Your task to perform on an android device: turn vacation reply on in the gmail app Image 0: 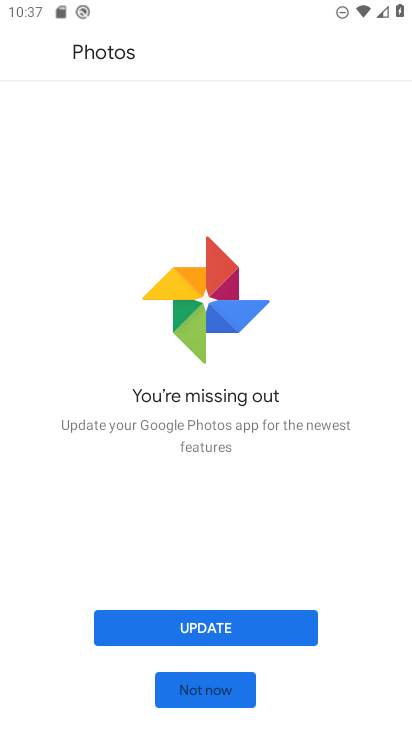
Step 0: press home button
Your task to perform on an android device: turn vacation reply on in the gmail app Image 1: 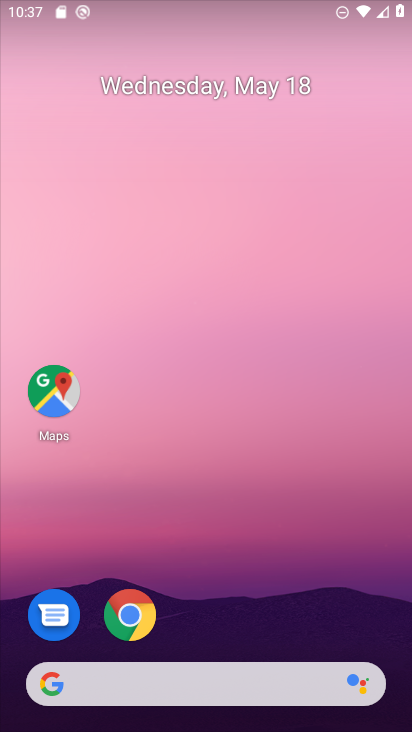
Step 1: drag from (245, 552) to (242, 56)
Your task to perform on an android device: turn vacation reply on in the gmail app Image 2: 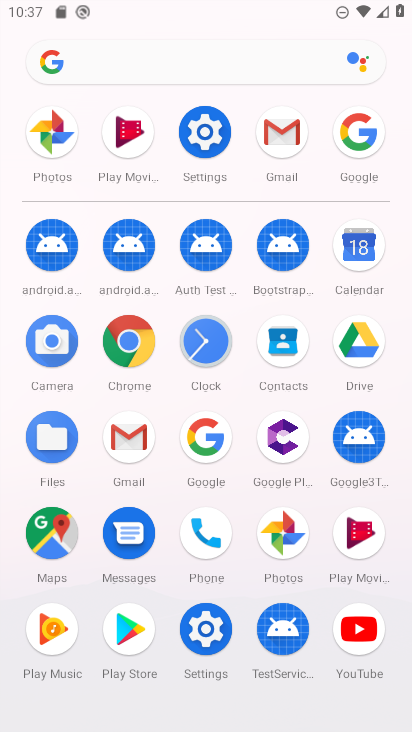
Step 2: click (203, 137)
Your task to perform on an android device: turn vacation reply on in the gmail app Image 3: 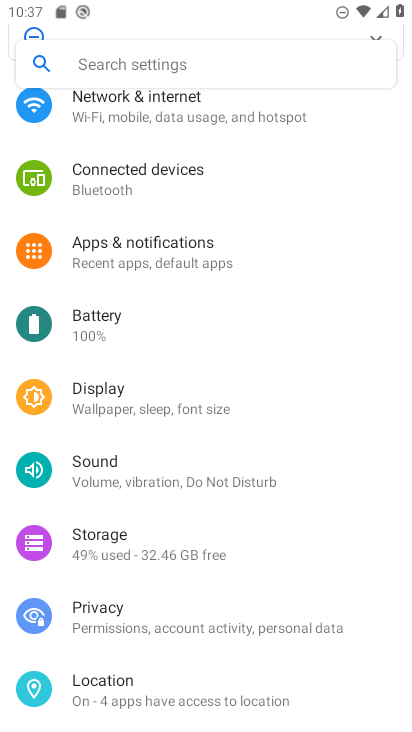
Step 3: drag from (175, 631) to (128, 182)
Your task to perform on an android device: turn vacation reply on in the gmail app Image 4: 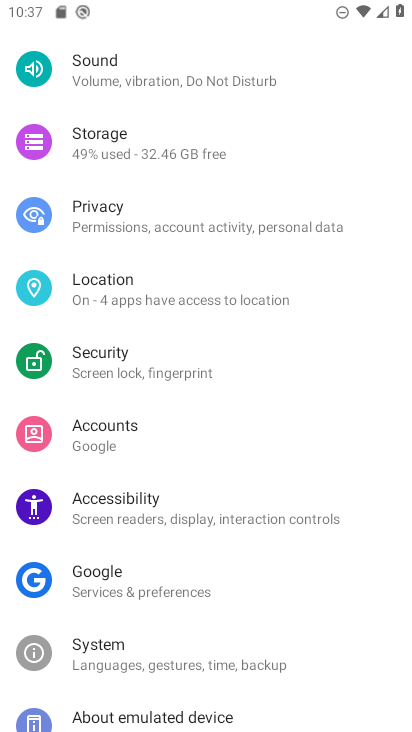
Step 4: drag from (208, 569) to (204, 258)
Your task to perform on an android device: turn vacation reply on in the gmail app Image 5: 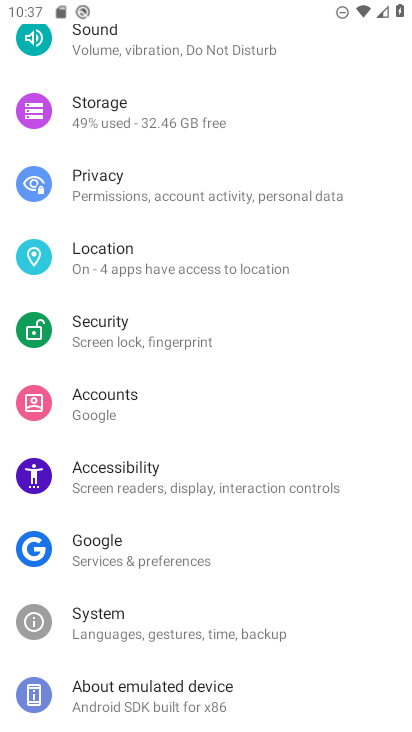
Step 5: drag from (183, 298) to (198, 452)
Your task to perform on an android device: turn vacation reply on in the gmail app Image 6: 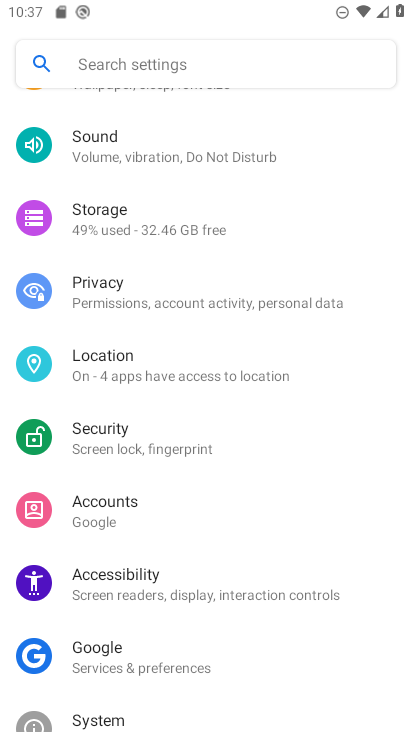
Step 6: press home button
Your task to perform on an android device: turn vacation reply on in the gmail app Image 7: 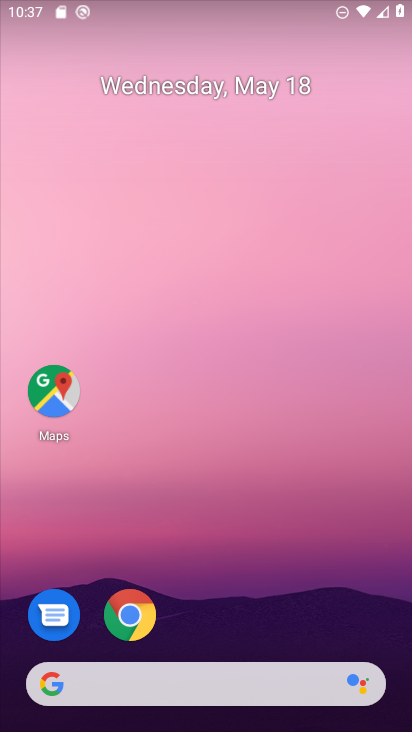
Step 7: drag from (204, 517) to (212, 5)
Your task to perform on an android device: turn vacation reply on in the gmail app Image 8: 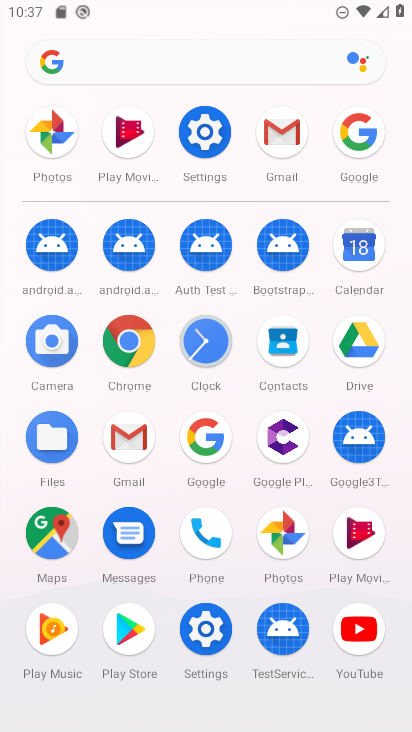
Step 8: click (276, 134)
Your task to perform on an android device: turn vacation reply on in the gmail app Image 9: 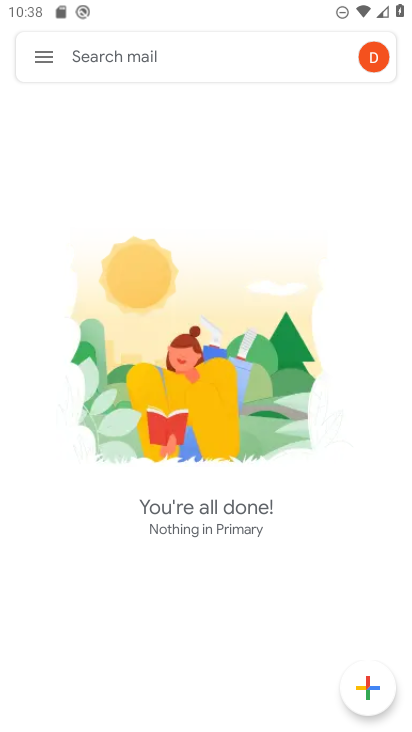
Step 9: click (42, 63)
Your task to perform on an android device: turn vacation reply on in the gmail app Image 10: 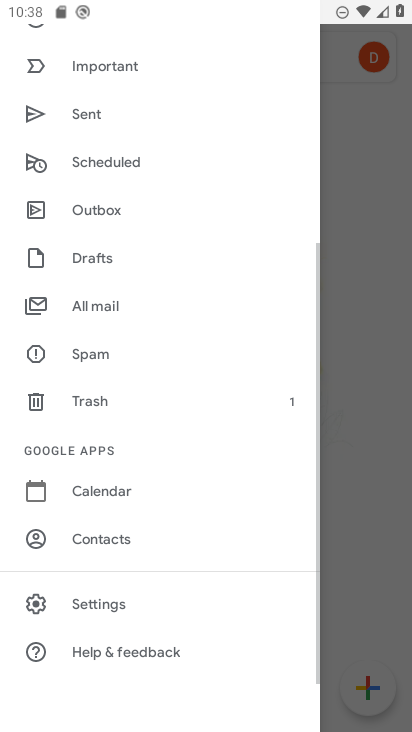
Step 10: click (93, 596)
Your task to perform on an android device: turn vacation reply on in the gmail app Image 11: 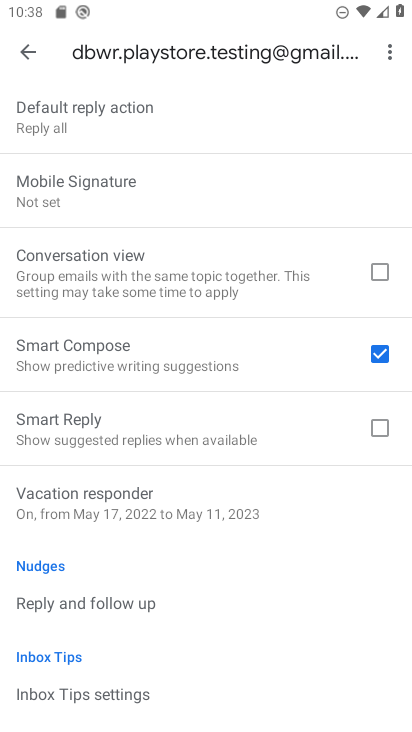
Step 11: click (97, 503)
Your task to perform on an android device: turn vacation reply on in the gmail app Image 12: 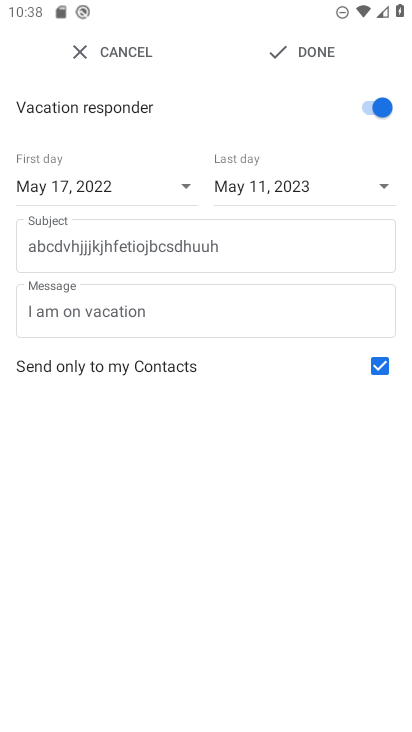
Step 12: task complete